Your task to perform on an android device: toggle location history Image 0: 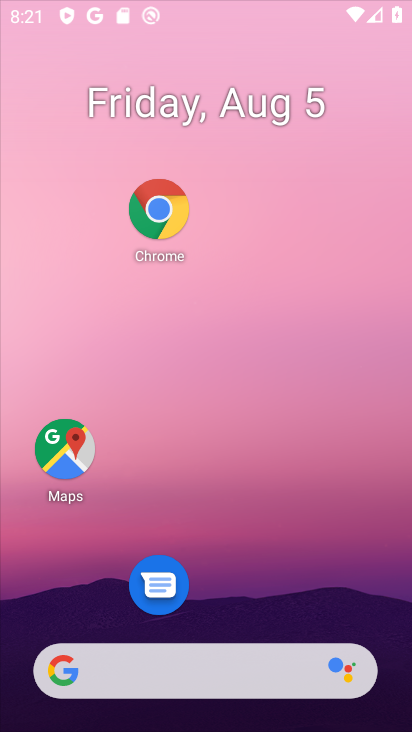
Step 0: click (284, 610)
Your task to perform on an android device: toggle location history Image 1: 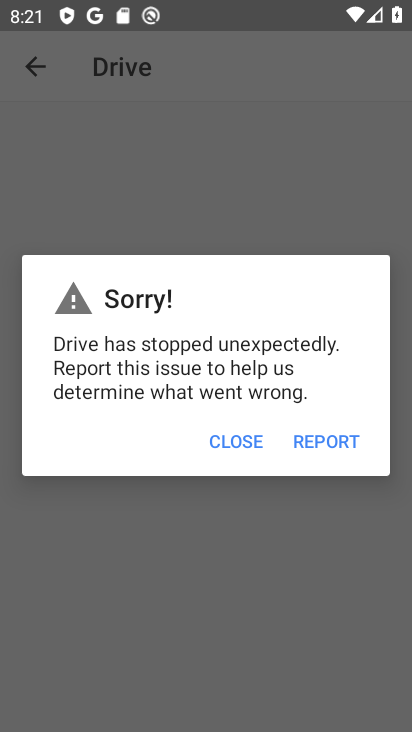
Step 1: press home button
Your task to perform on an android device: toggle location history Image 2: 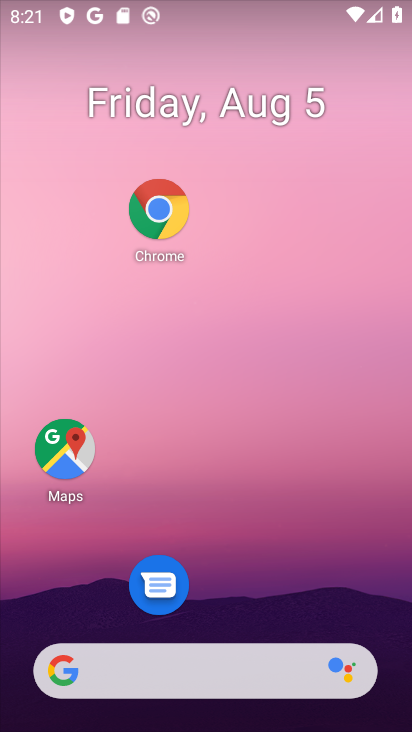
Step 2: drag from (221, 634) to (342, 523)
Your task to perform on an android device: toggle location history Image 3: 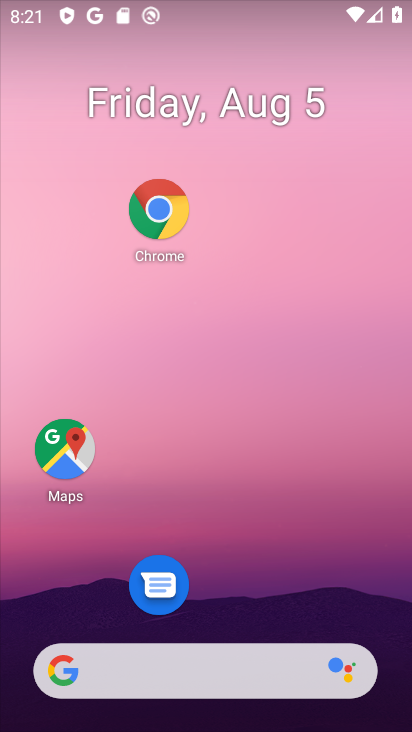
Step 3: drag from (284, 606) to (241, 127)
Your task to perform on an android device: toggle location history Image 4: 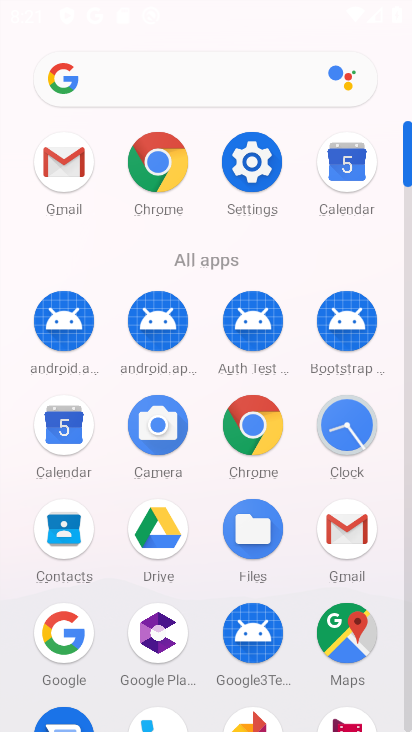
Step 4: click (249, 179)
Your task to perform on an android device: toggle location history Image 5: 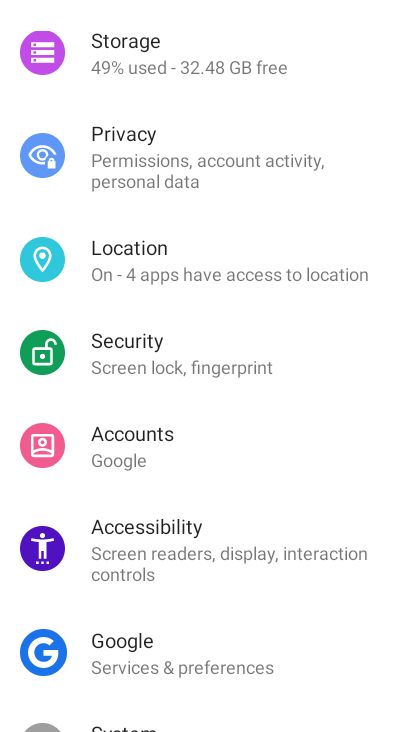
Step 5: click (140, 283)
Your task to perform on an android device: toggle location history Image 6: 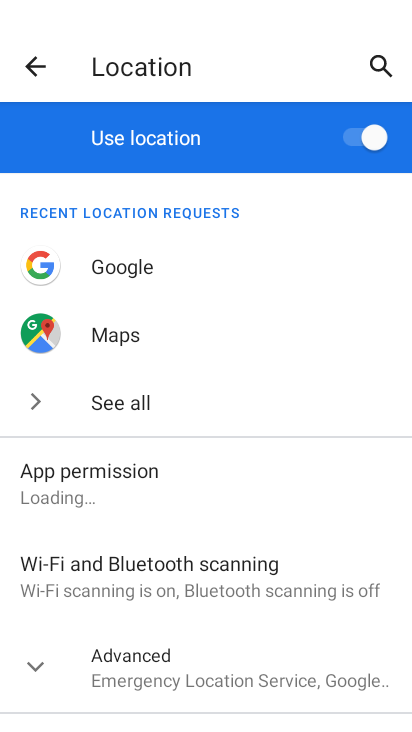
Step 6: click (104, 662)
Your task to perform on an android device: toggle location history Image 7: 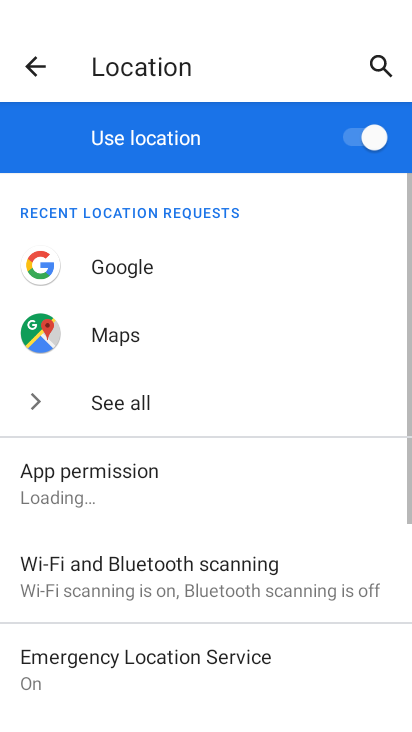
Step 7: drag from (104, 662) to (81, 159)
Your task to perform on an android device: toggle location history Image 8: 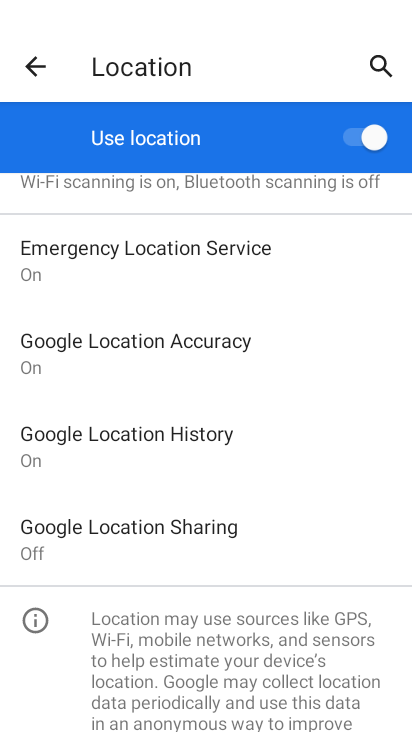
Step 8: click (89, 420)
Your task to perform on an android device: toggle location history Image 9: 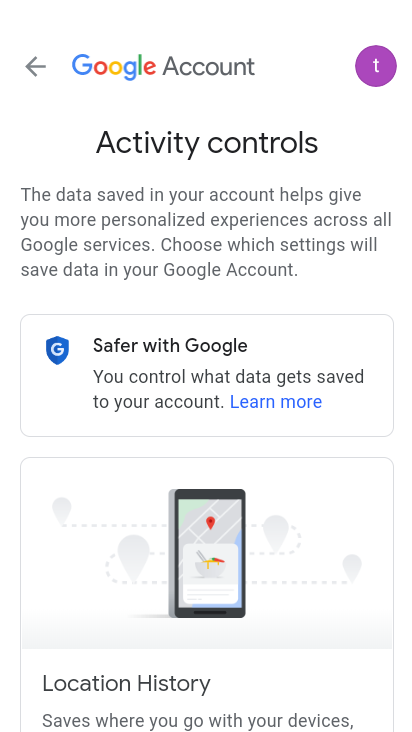
Step 9: drag from (278, 462) to (241, 44)
Your task to perform on an android device: toggle location history Image 10: 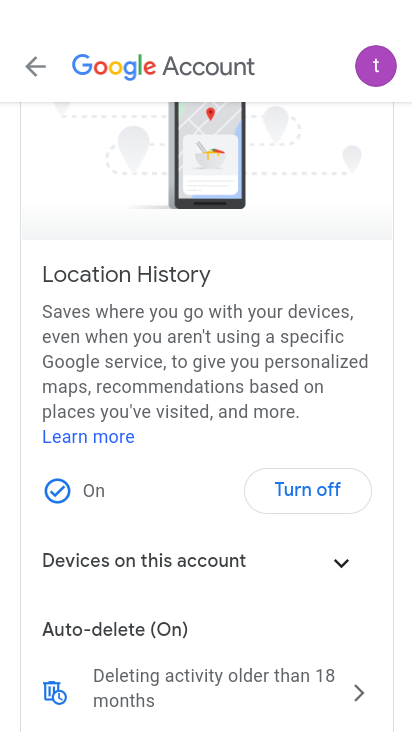
Step 10: click (305, 479)
Your task to perform on an android device: toggle location history Image 11: 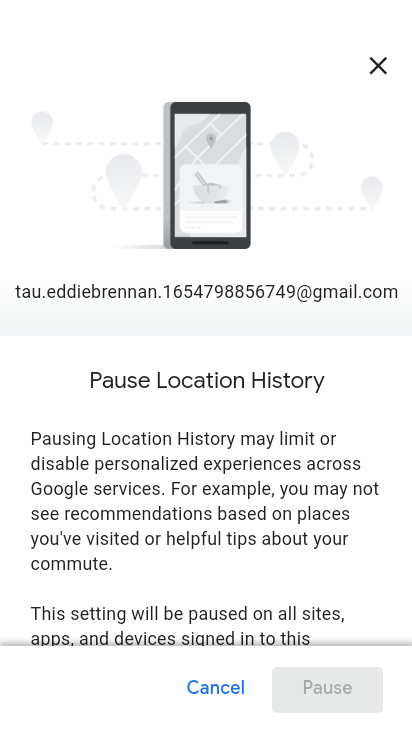
Step 11: drag from (336, 532) to (294, 185)
Your task to perform on an android device: toggle location history Image 12: 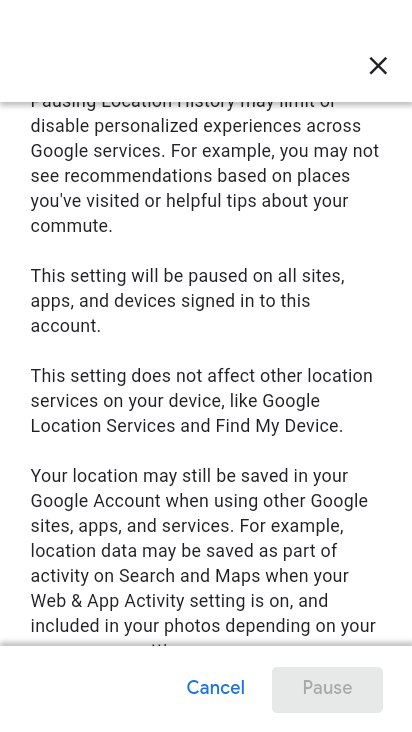
Step 12: drag from (323, 574) to (237, 80)
Your task to perform on an android device: toggle location history Image 13: 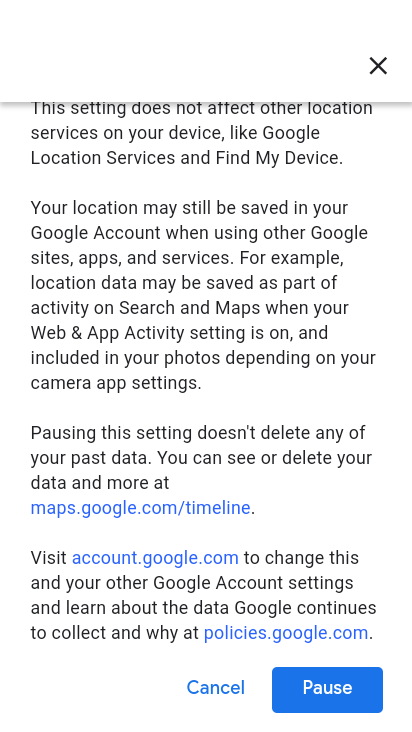
Step 13: click (350, 681)
Your task to perform on an android device: toggle location history Image 14: 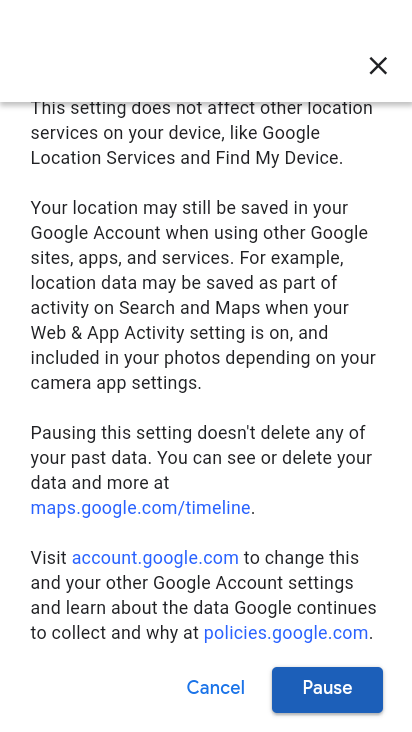
Step 14: click (312, 687)
Your task to perform on an android device: toggle location history Image 15: 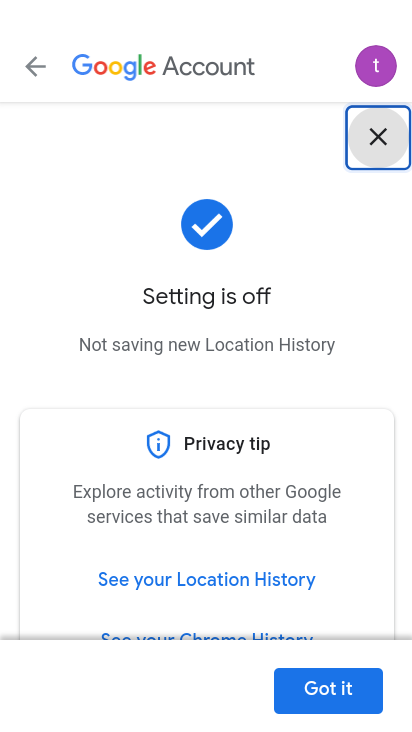
Step 15: click (312, 687)
Your task to perform on an android device: toggle location history Image 16: 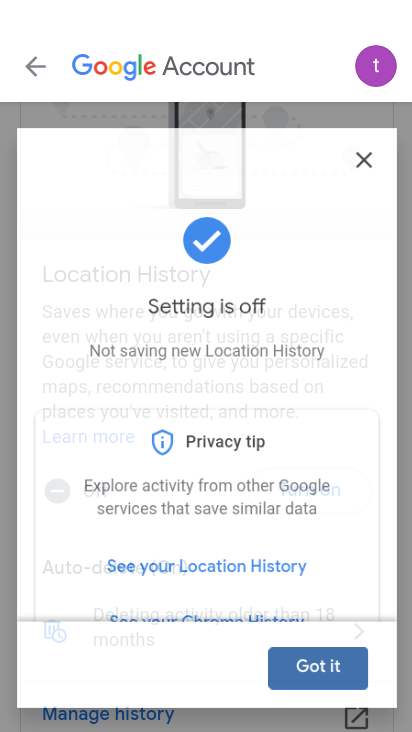
Step 16: task complete